Your task to perform on an android device: turn off wifi Image 0: 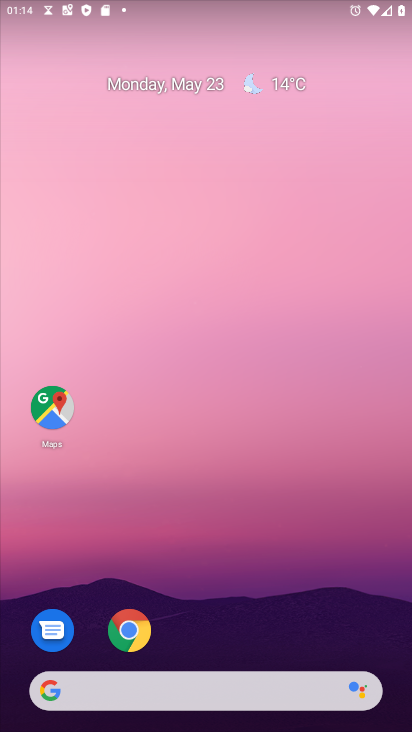
Step 0: drag from (258, 532) to (181, 30)
Your task to perform on an android device: turn off wifi Image 1: 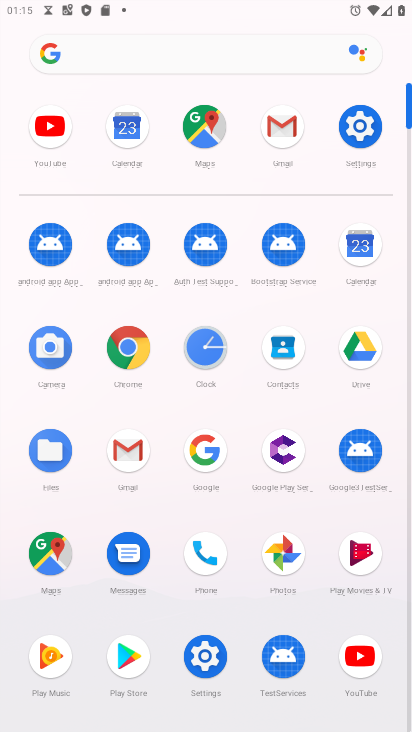
Step 1: click (219, 654)
Your task to perform on an android device: turn off wifi Image 2: 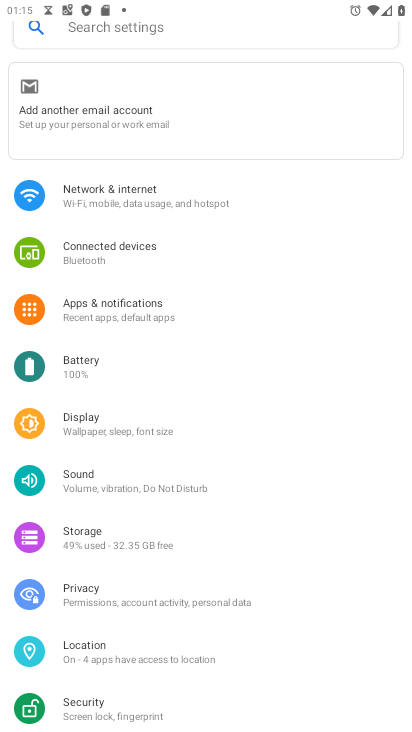
Step 2: click (185, 199)
Your task to perform on an android device: turn off wifi Image 3: 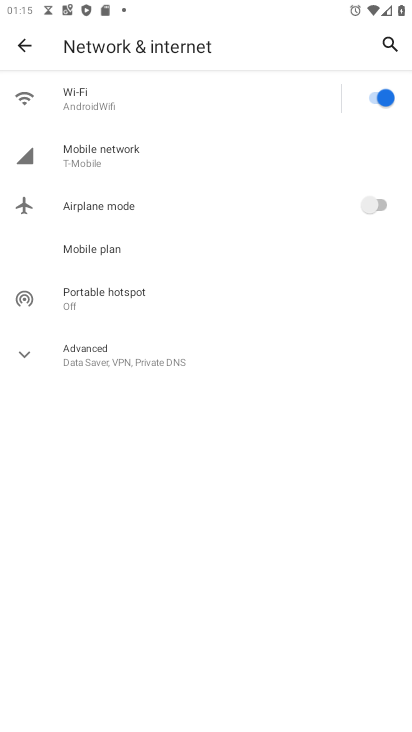
Step 3: click (383, 101)
Your task to perform on an android device: turn off wifi Image 4: 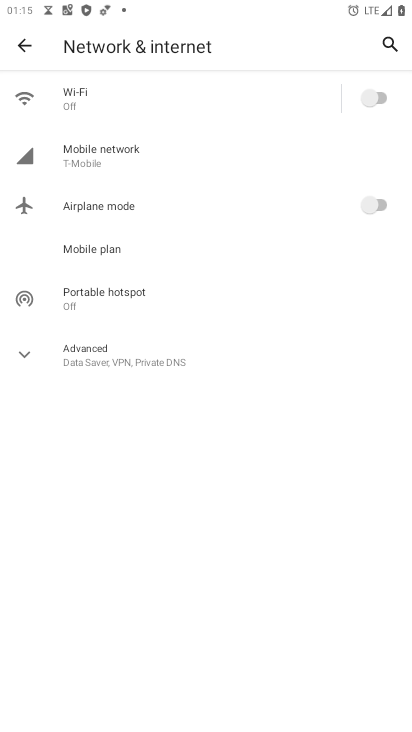
Step 4: task complete